Your task to perform on an android device: Show the shopping cart on newegg. Add usb-c to the cart on newegg, then select checkout. Image 0: 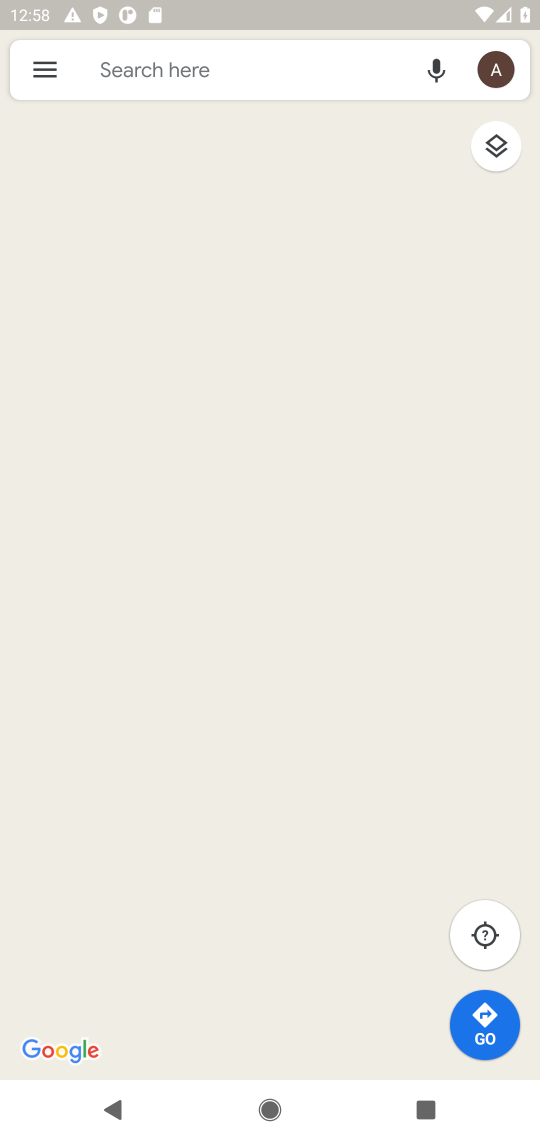
Step 0: click (371, 893)
Your task to perform on an android device: Show the shopping cart on newegg. Add usb-c to the cart on newegg, then select checkout. Image 1: 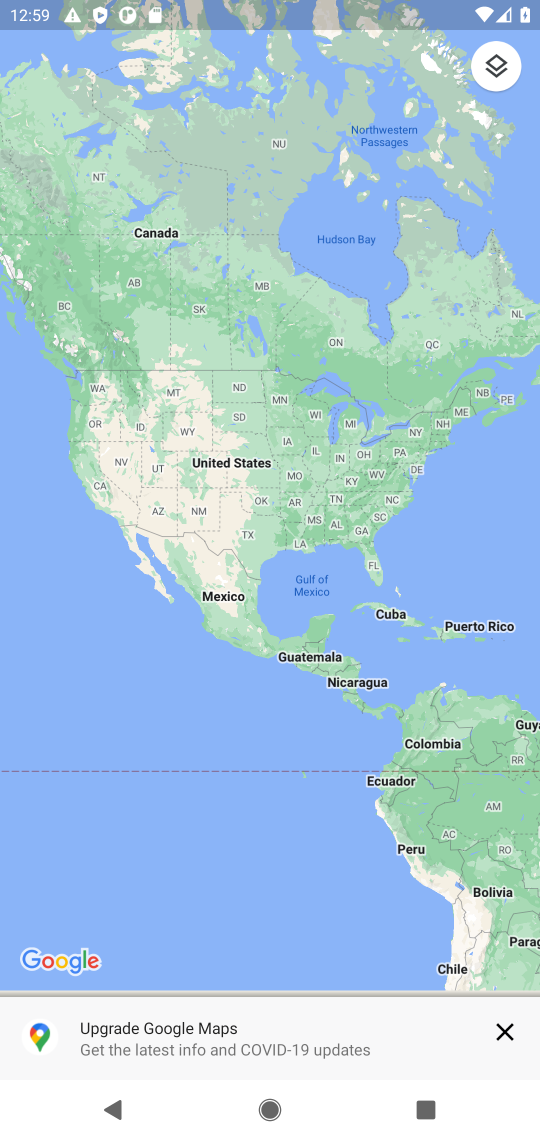
Step 1: press home button
Your task to perform on an android device: Show the shopping cart on newegg. Add usb-c to the cart on newegg, then select checkout. Image 2: 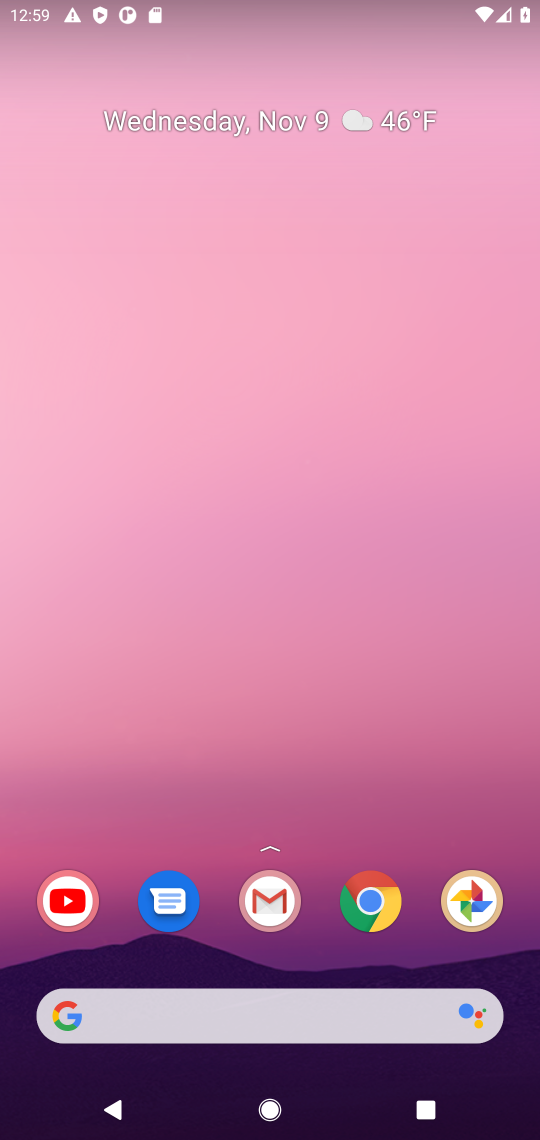
Step 2: click (359, 899)
Your task to perform on an android device: Show the shopping cart on newegg. Add usb-c to the cart on newegg, then select checkout. Image 3: 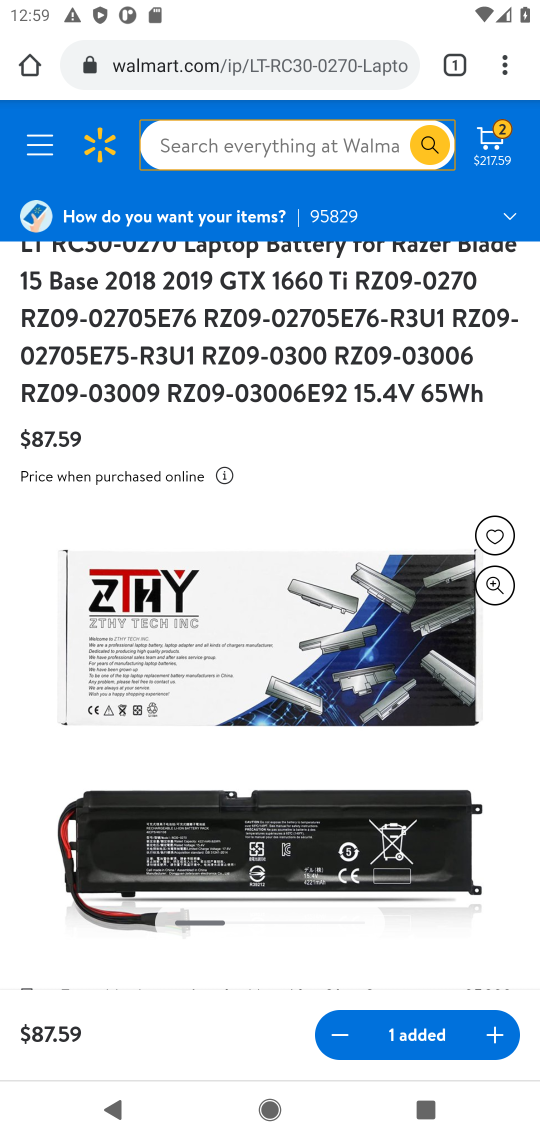
Step 3: click (282, 51)
Your task to perform on an android device: Show the shopping cart on newegg. Add usb-c to the cart on newegg, then select checkout. Image 4: 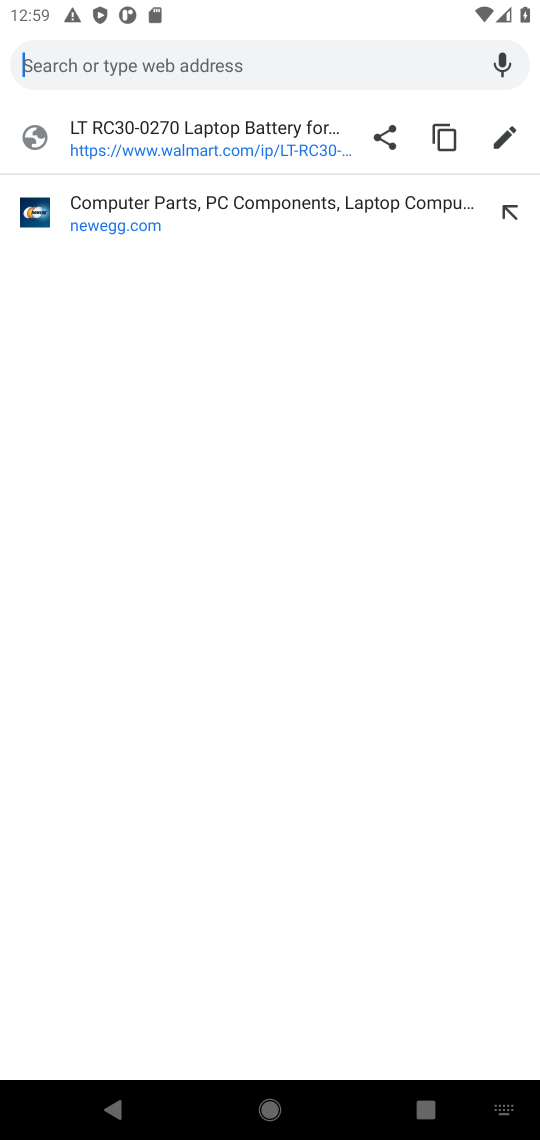
Step 4: press enter
Your task to perform on an android device: Show the shopping cart on newegg. Add usb-c to the cart on newegg, then select checkout. Image 5: 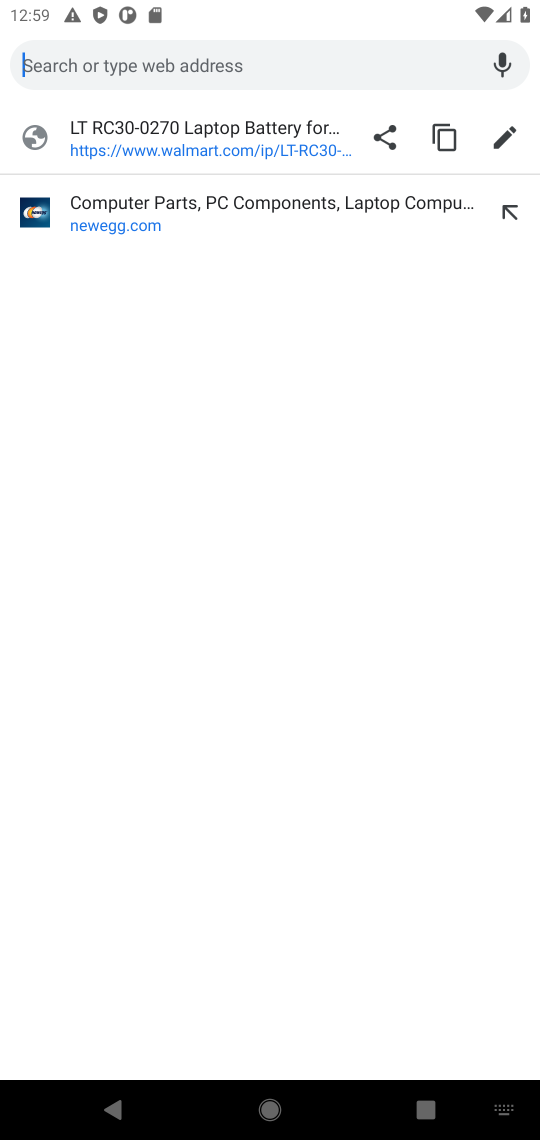
Step 5: type "newegg"
Your task to perform on an android device: Show the shopping cart on newegg. Add usb-c to the cart on newegg, then select checkout. Image 6: 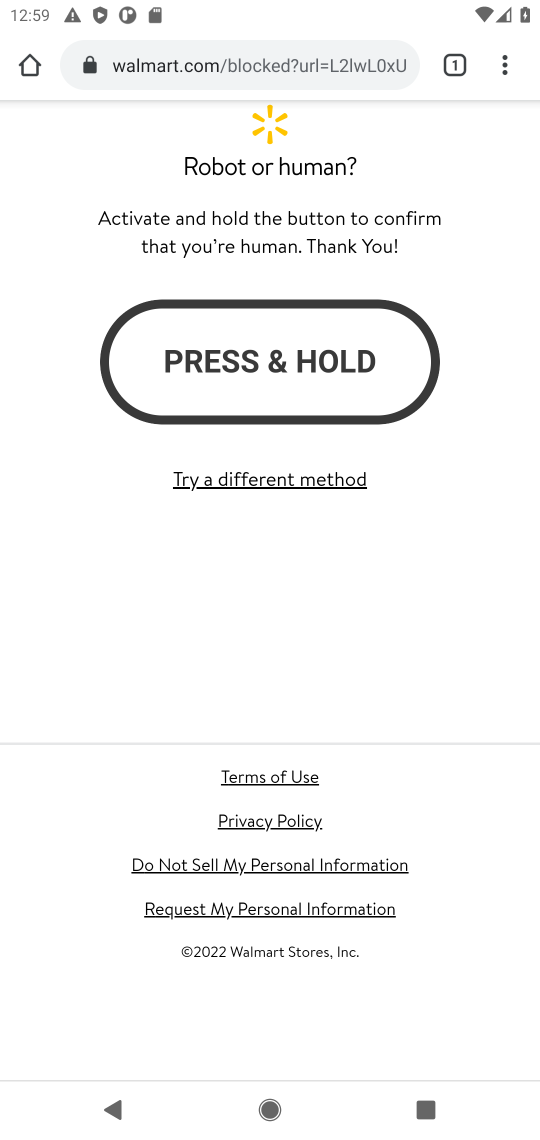
Step 6: click (304, 55)
Your task to perform on an android device: Show the shopping cart on newegg. Add usb-c to the cart on newegg, then select checkout. Image 7: 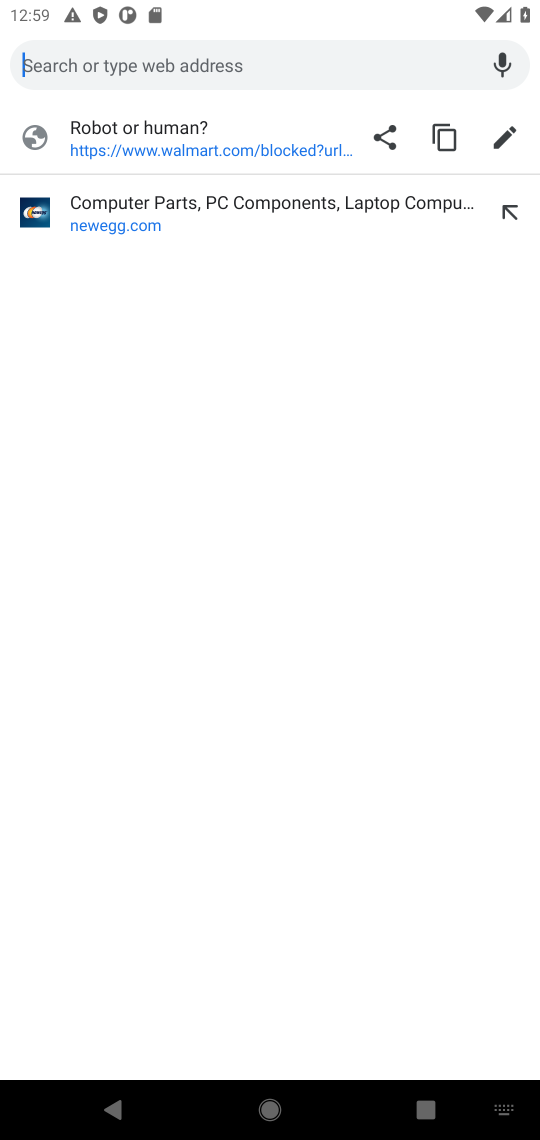
Step 7: type "newegg"
Your task to perform on an android device: Show the shopping cart on newegg. Add usb-c to the cart on newegg, then select checkout. Image 8: 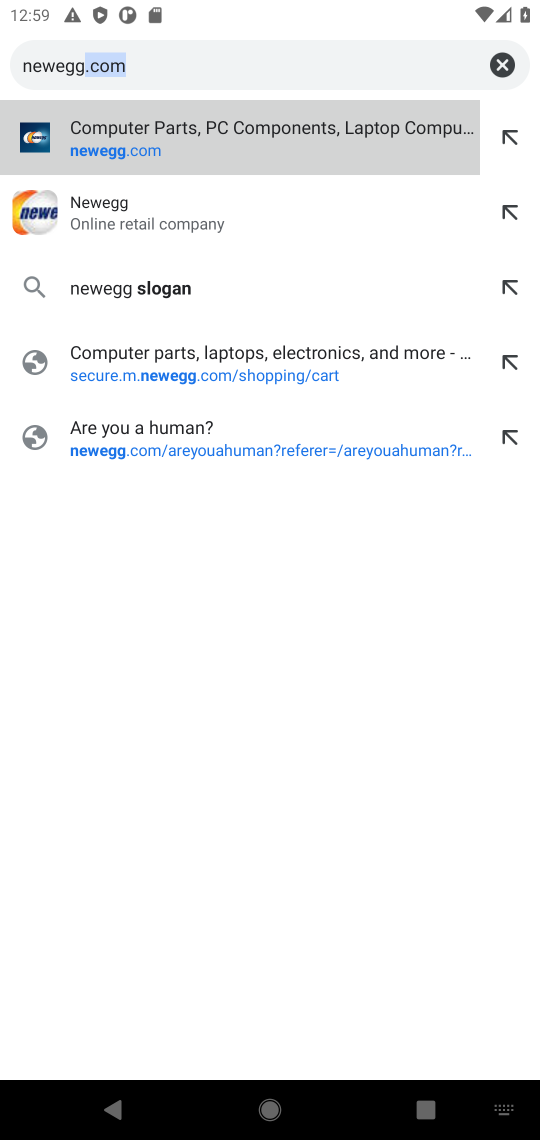
Step 8: press enter
Your task to perform on an android device: Show the shopping cart on newegg. Add usb-c to the cart on newegg, then select checkout. Image 9: 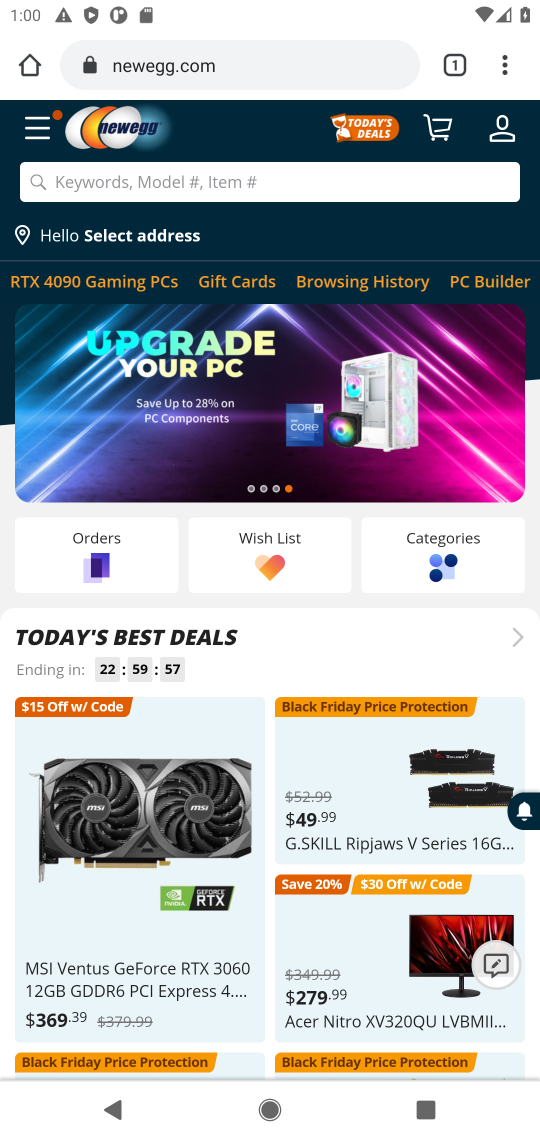
Step 9: click (415, 183)
Your task to perform on an android device: Show the shopping cart on newegg. Add usb-c to the cart on newegg, then select checkout. Image 10: 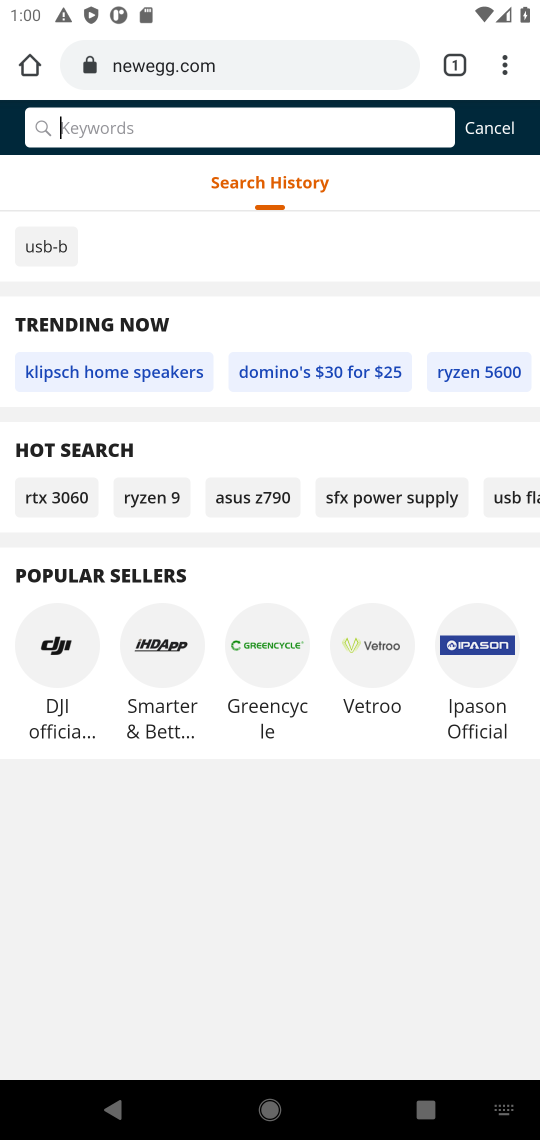
Step 10: type "usb-c "
Your task to perform on an android device: Show the shopping cart on newegg. Add usb-c to the cart on newegg, then select checkout. Image 11: 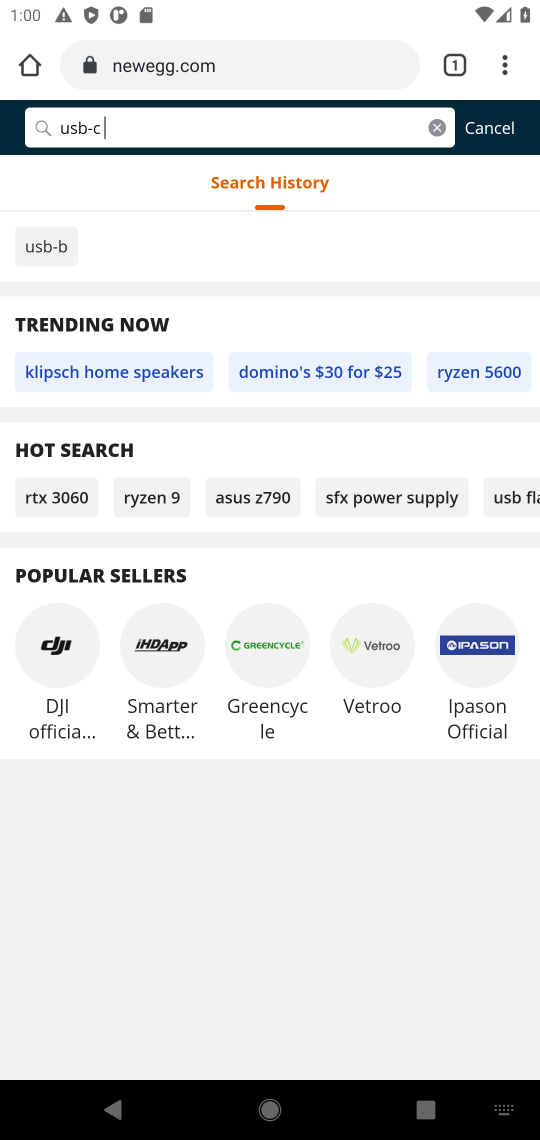
Step 11: press enter
Your task to perform on an android device: Show the shopping cart on newegg. Add usb-c to the cart on newegg, then select checkout. Image 12: 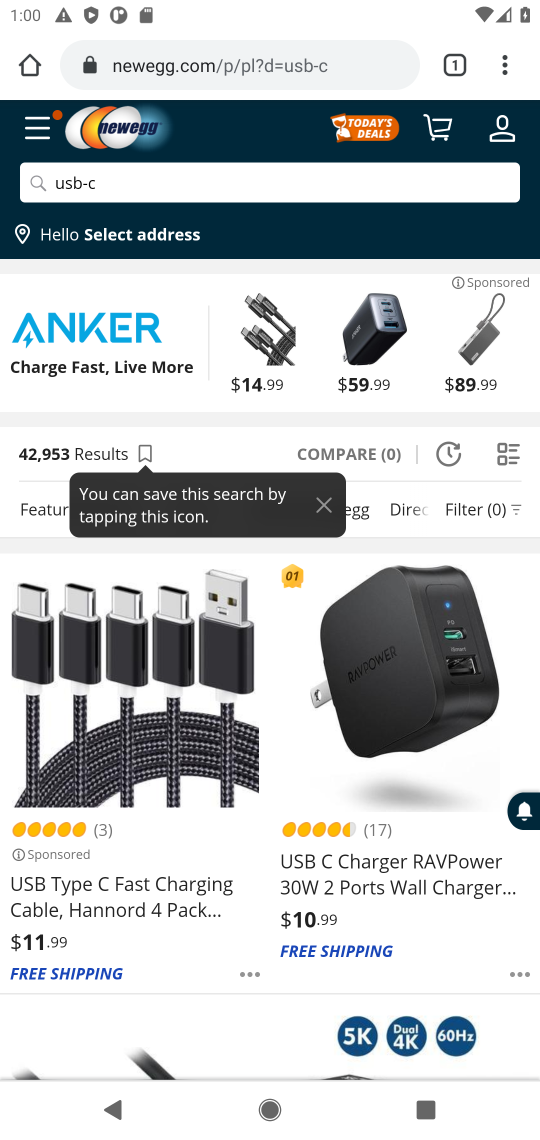
Step 12: click (165, 700)
Your task to perform on an android device: Show the shopping cart on newegg. Add usb-c to the cart on newegg, then select checkout. Image 13: 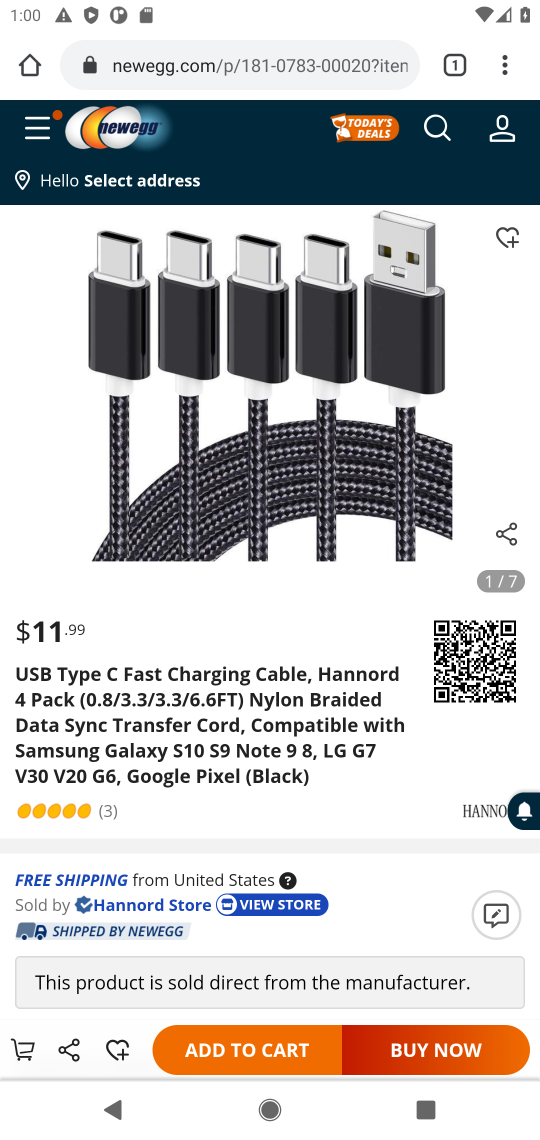
Step 13: click (237, 1042)
Your task to perform on an android device: Show the shopping cart on newegg. Add usb-c to the cart on newegg, then select checkout. Image 14: 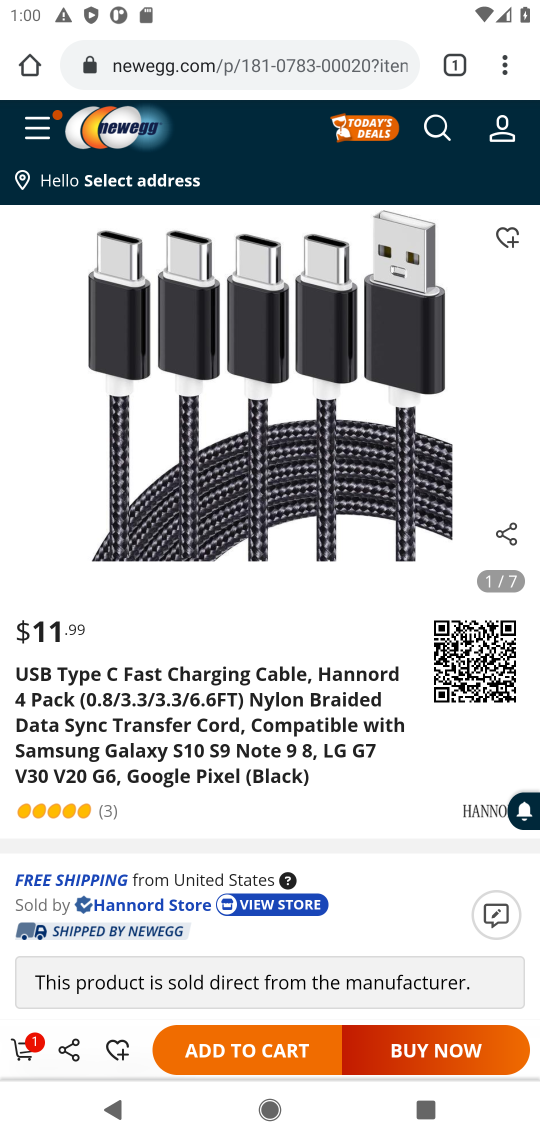
Step 14: click (25, 1054)
Your task to perform on an android device: Show the shopping cart on newegg. Add usb-c to the cart on newegg, then select checkout. Image 15: 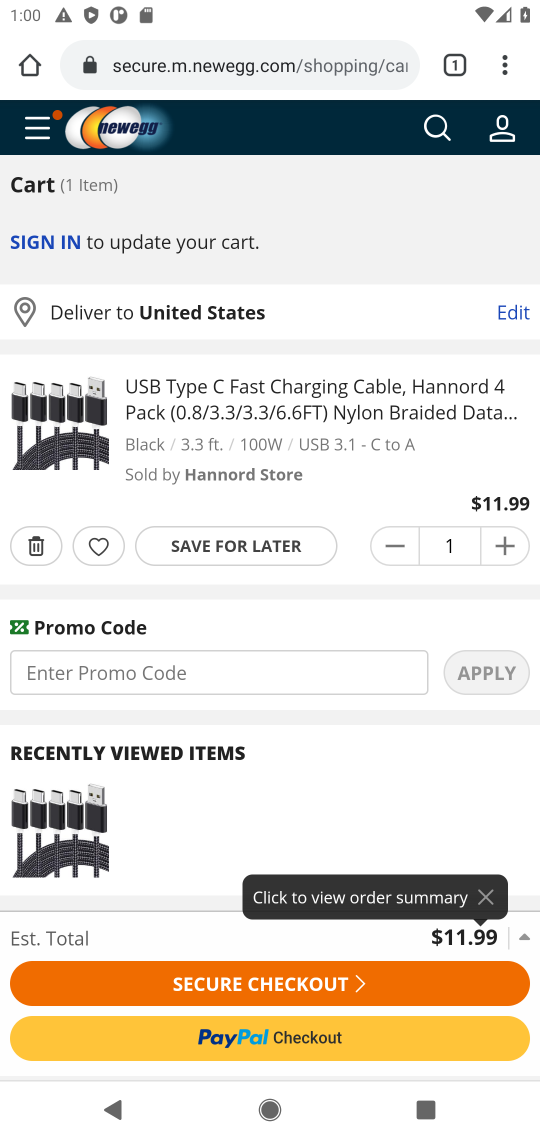
Step 15: click (302, 980)
Your task to perform on an android device: Show the shopping cart on newegg. Add usb-c to the cart on newegg, then select checkout. Image 16: 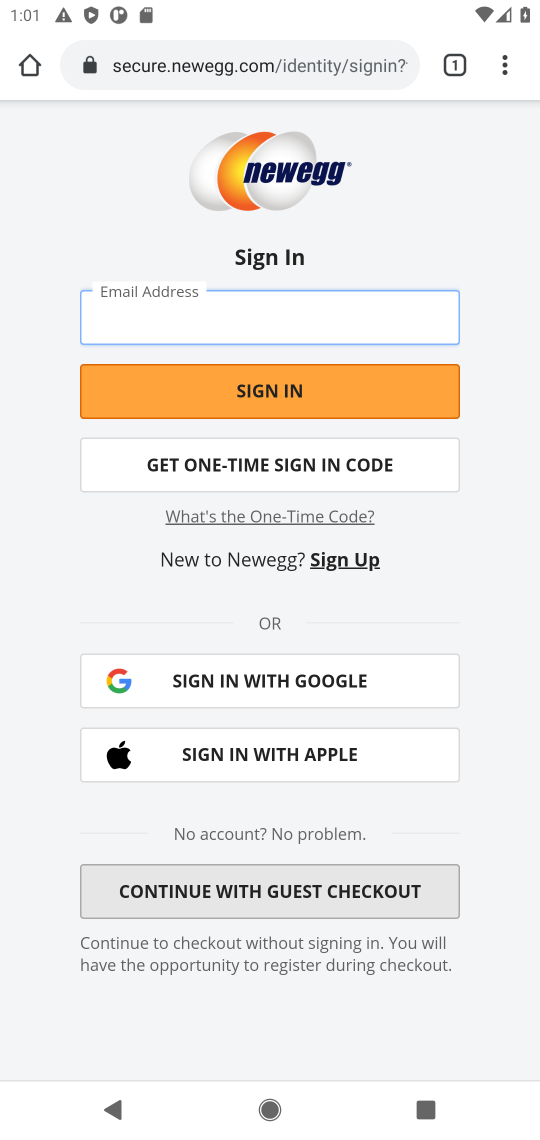
Step 16: task complete